Your task to perform on an android device: refresh tabs in the chrome app Image 0: 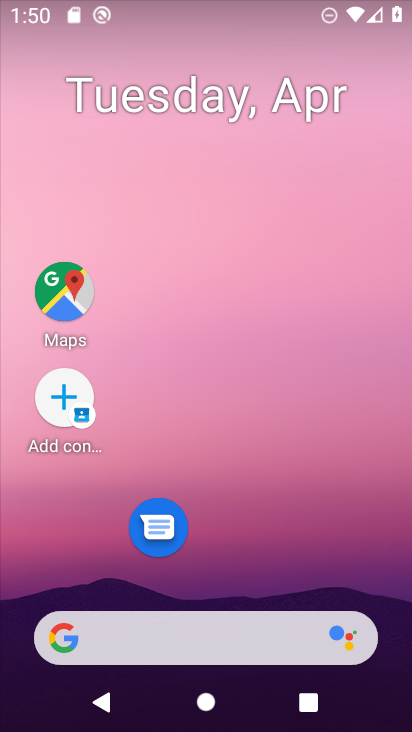
Step 0: drag from (285, 567) to (257, 154)
Your task to perform on an android device: refresh tabs in the chrome app Image 1: 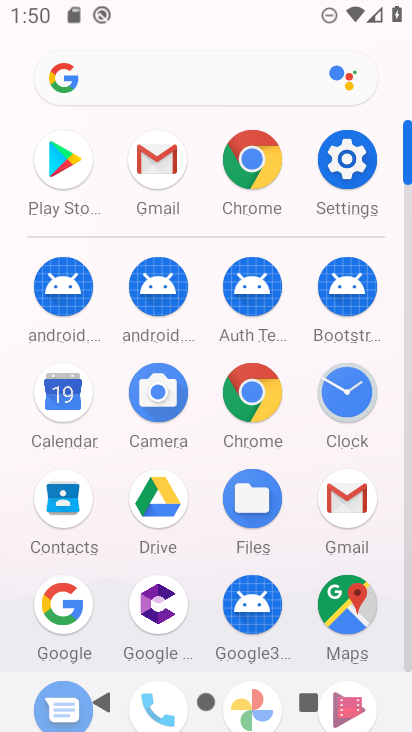
Step 1: click (248, 165)
Your task to perform on an android device: refresh tabs in the chrome app Image 2: 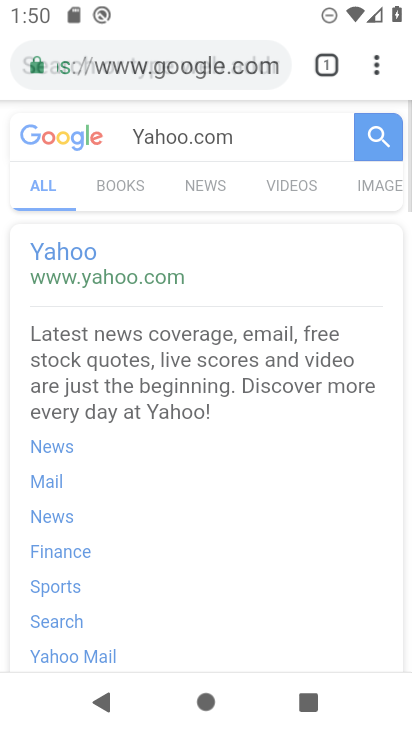
Step 2: click (382, 64)
Your task to perform on an android device: refresh tabs in the chrome app Image 3: 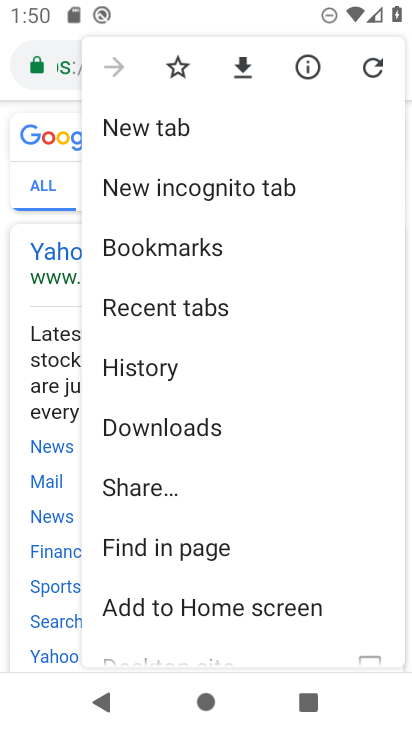
Step 3: click (375, 70)
Your task to perform on an android device: refresh tabs in the chrome app Image 4: 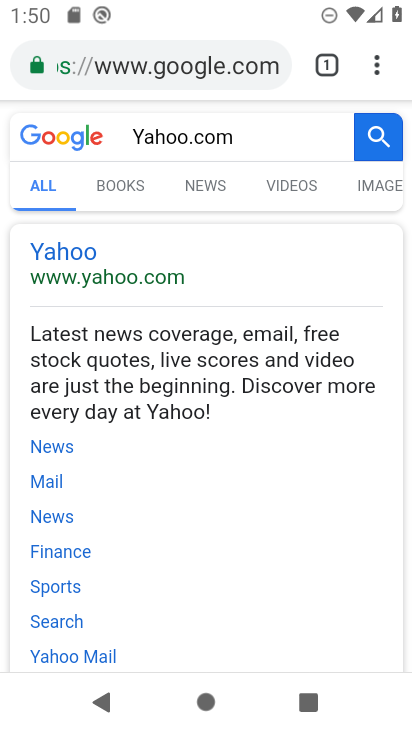
Step 4: task complete